Your task to perform on an android device: Go to Amazon Image 0: 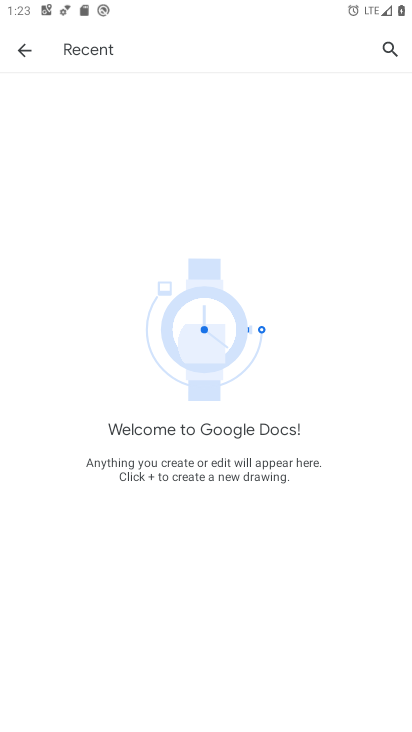
Step 0: press home button
Your task to perform on an android device: Go to Amazon Image 1: 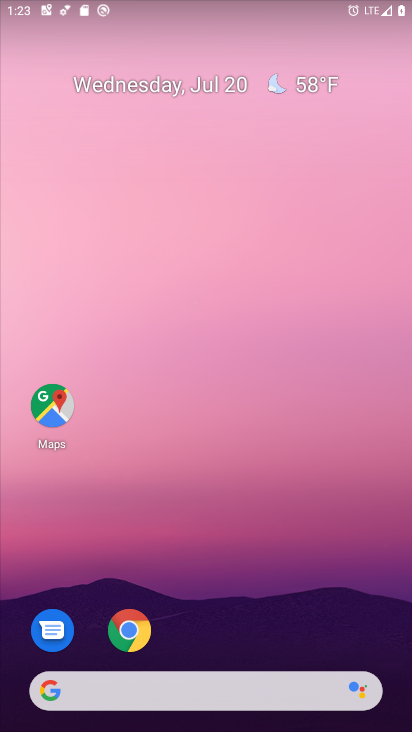
Step 1: drag from (251, 641) to (277, 43)
Your task to perform on an android device: Go to Amazon Image 2: 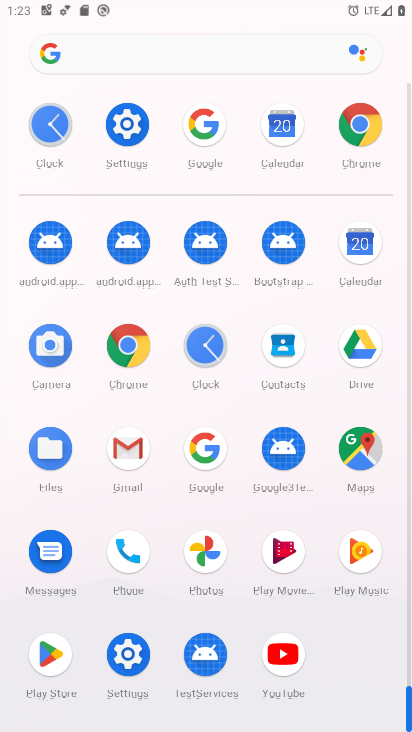
Step 2: click (368, 160)
Your task to perform on an android device: Go to Amazon Image 3: 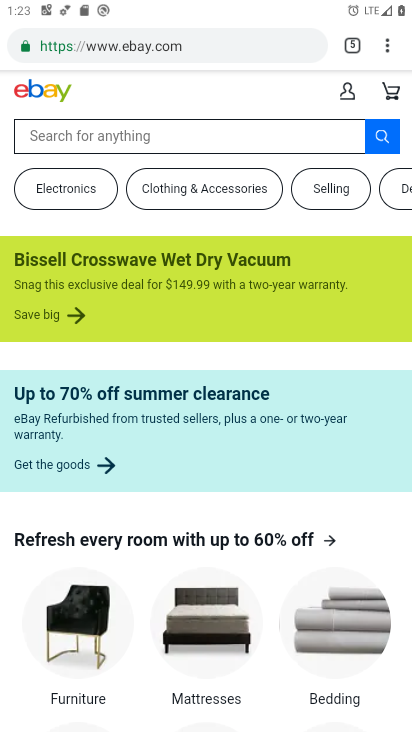
Step 3: drag from (336, 156) to (312, 297)
Your task to perform on an android device: Go to Amazon Image 4: 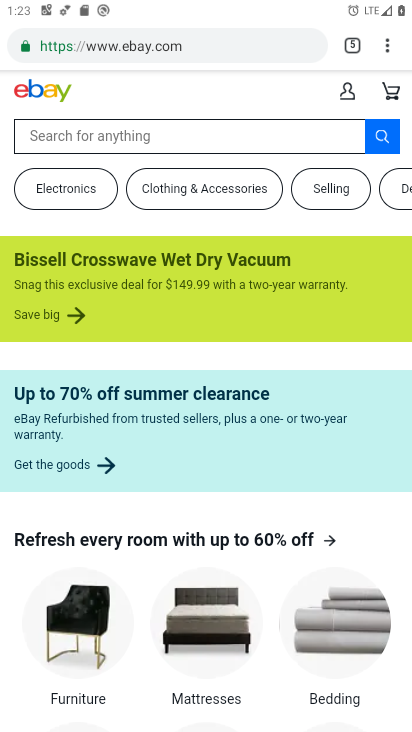
Step 4: drag from (353, 50) to (361, 330)
Your task to perform on an android device: Go to Amazon Image 5: 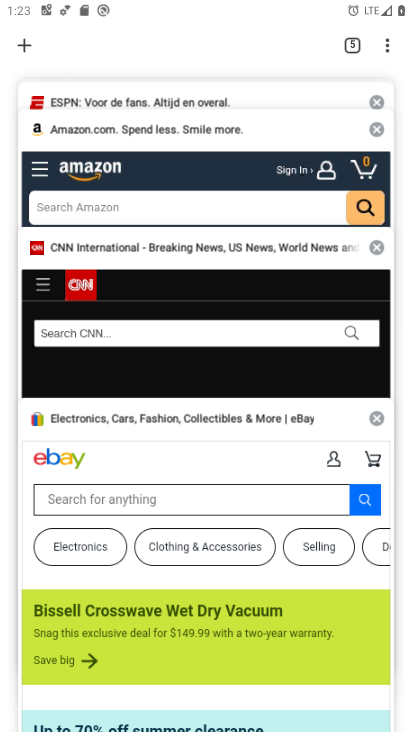
Step 5: click (18, 45)
Your task to perform on an android device: Go to Amazon Image 6: 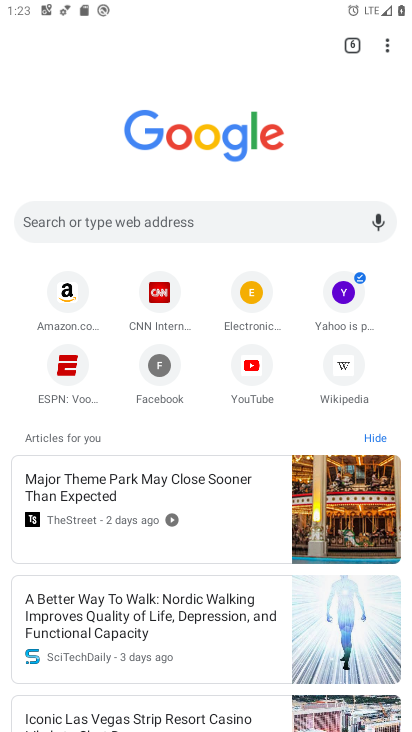
Step 6: click (69, 280)
Your task to perform on an android device: Go to Amazon Image 7: 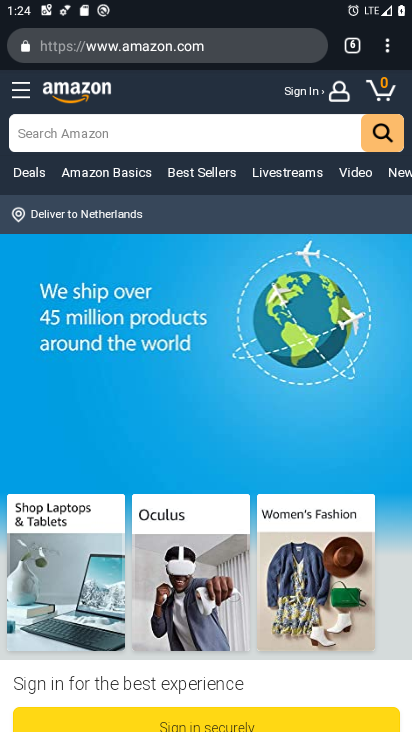
Step 7: task complete